Your task to perform on an android device: Go to Maps Image 0: 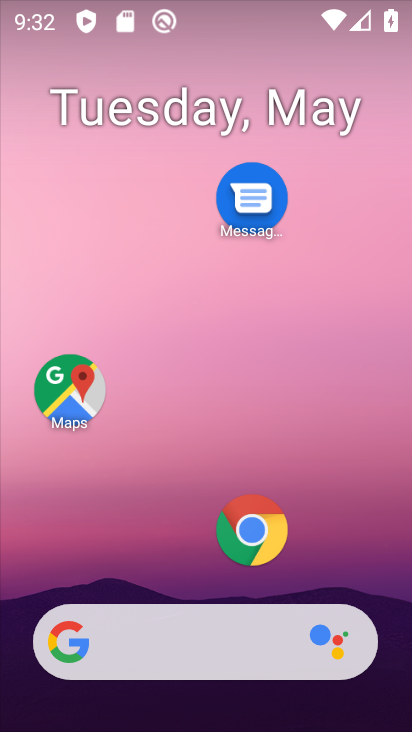
Step 0: click (80, 408)
Your task to perform on an android device: Go to Maps Image 1: 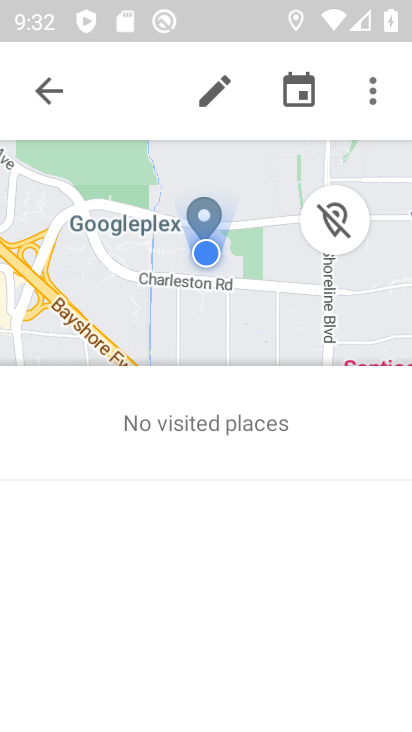
Step 1: click (42, 92)
Your task to perform on an android device: Go to Maps Image 2: 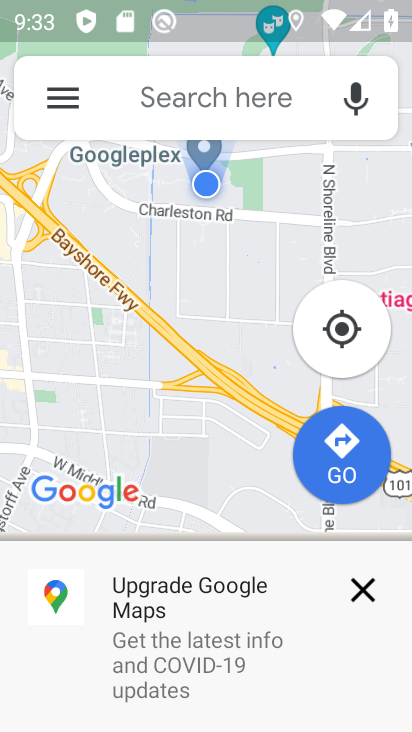
Step 2: task complete